Your task to perform on an android device: empty trash in the gmail app Image 0: 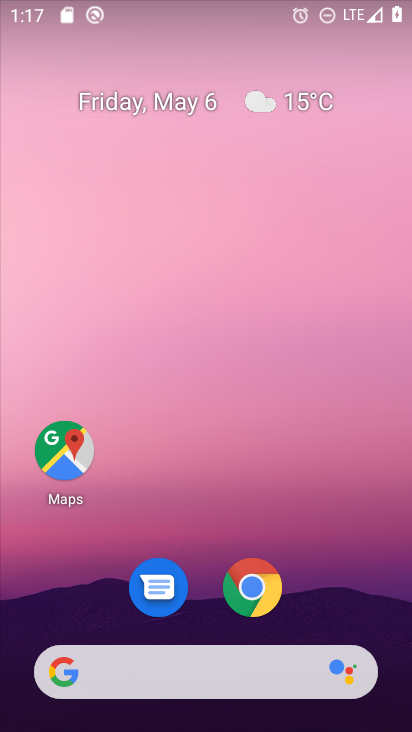
Step 0: drag from (332, 586) to (248, 50)
Your task to perform on an android device: empty trash in the gmail app Image 1: 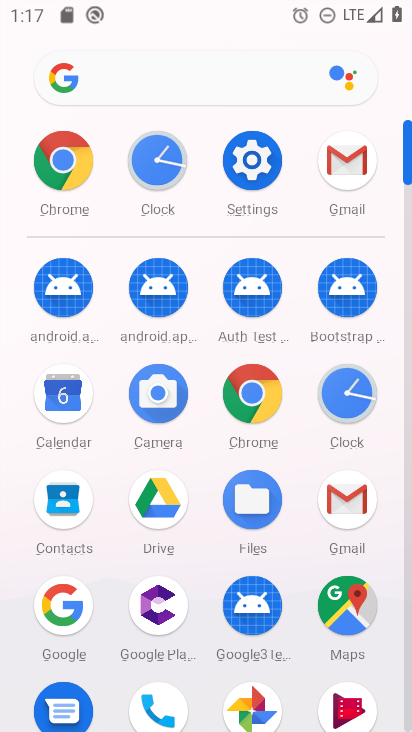
Step 1: click (345, 159)
Your task to perform on an android device: empty trash in the gmail app Image 2: 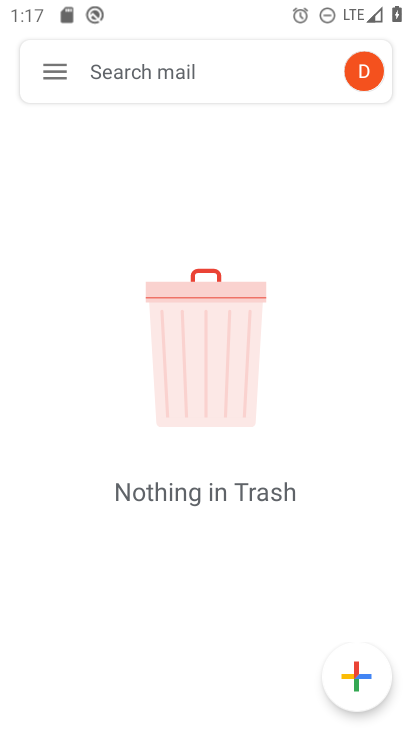
Step 2: task complete